Your task to perform on an android device: Open calendar and show me the second week of next month Image 0: 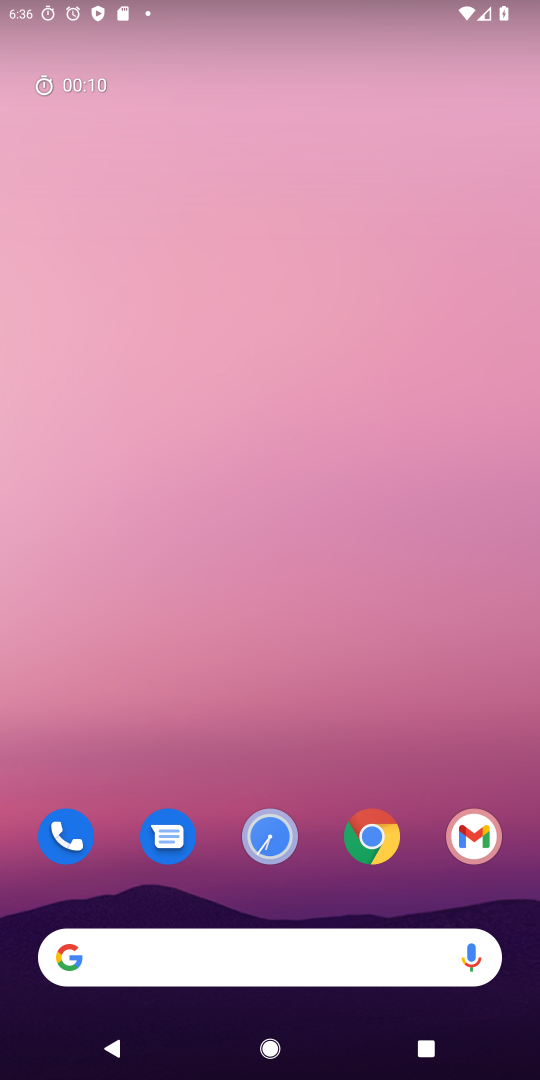
Step 0: drag from (348, 686) to (440, 6)
Your task to perform on an android device: Open calendar and show me the second week of next month Image 1: 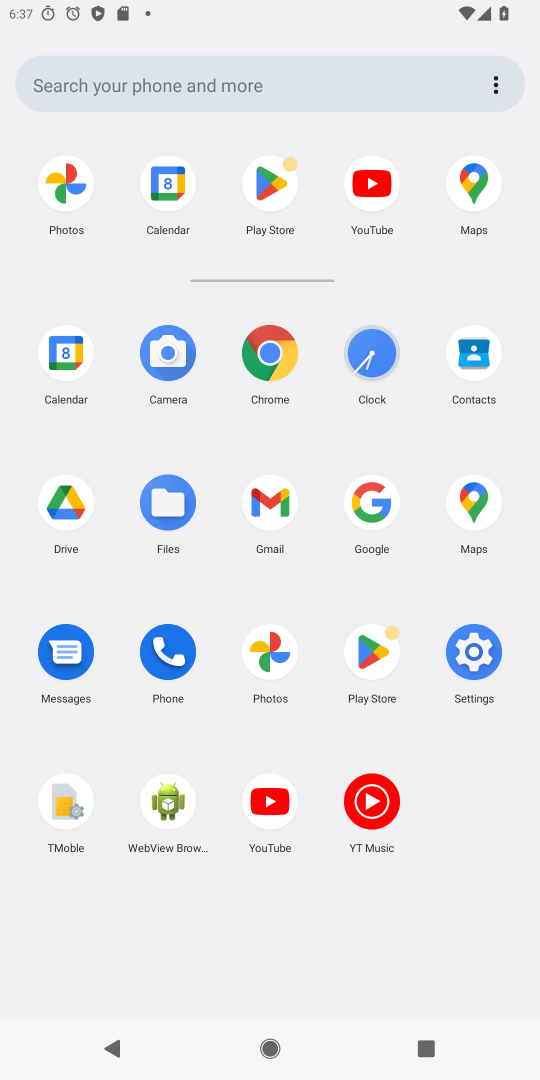
Step 1: click (47, 373)
Your task to perform on an android device: Open calendar and show me the second week of next month Image 2: 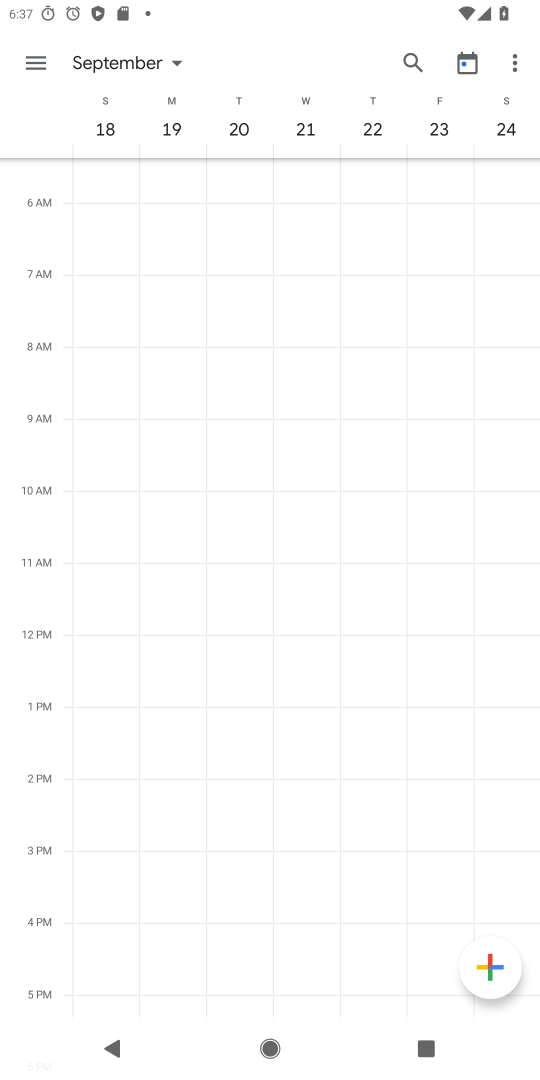
Step 2: click (171, 69)
Your task to perform on an android device: Open calendar and show me the second week of next month Image 3: 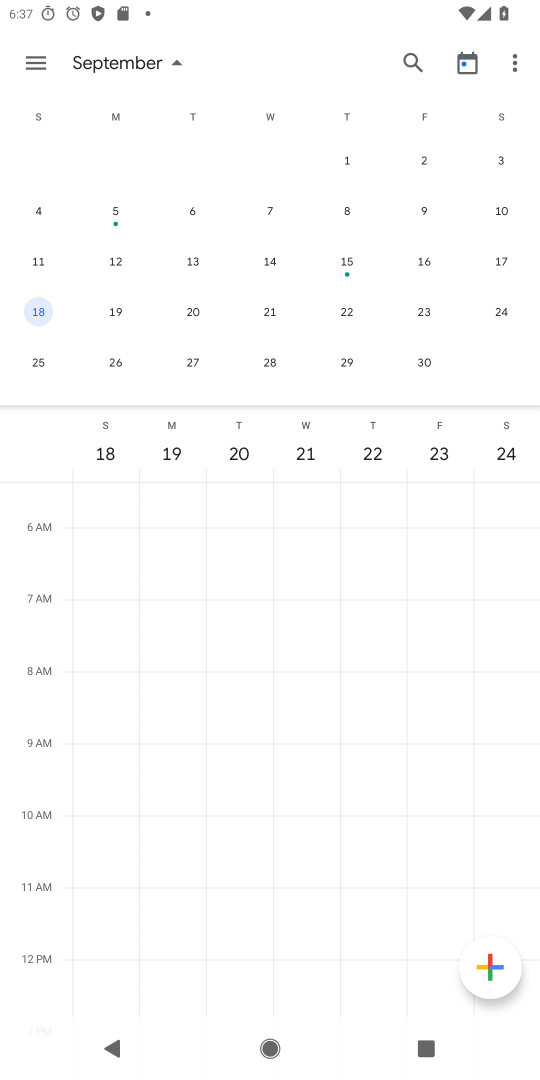
Step 3: click (24, 261)
Your task to perform on an android device: Open calendar and show me the second week of next month Image 4: 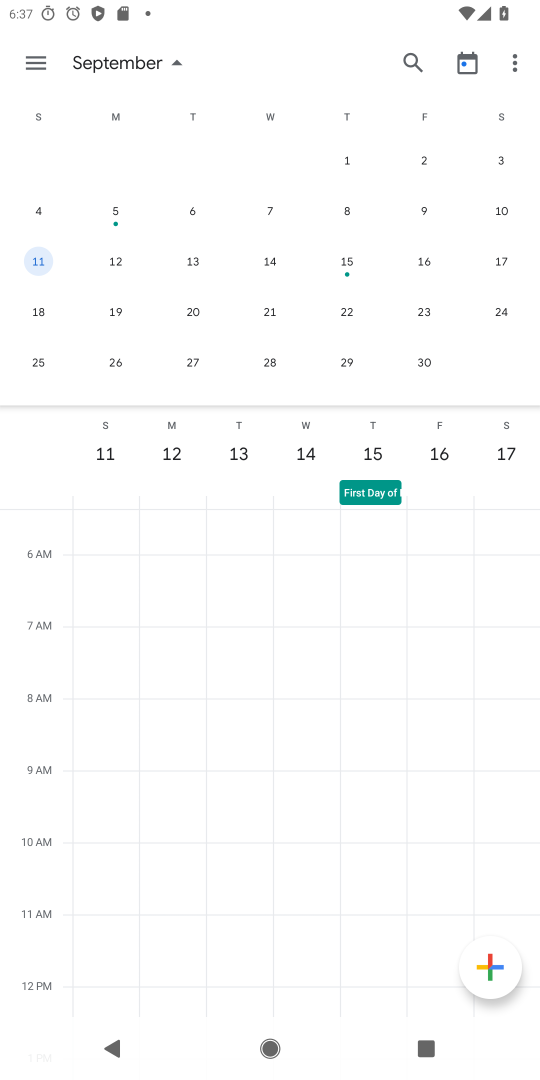
Step 4: click (159, 50)
Your task to perform on an android device: Open calendar and show me the second week of next month Image 5: 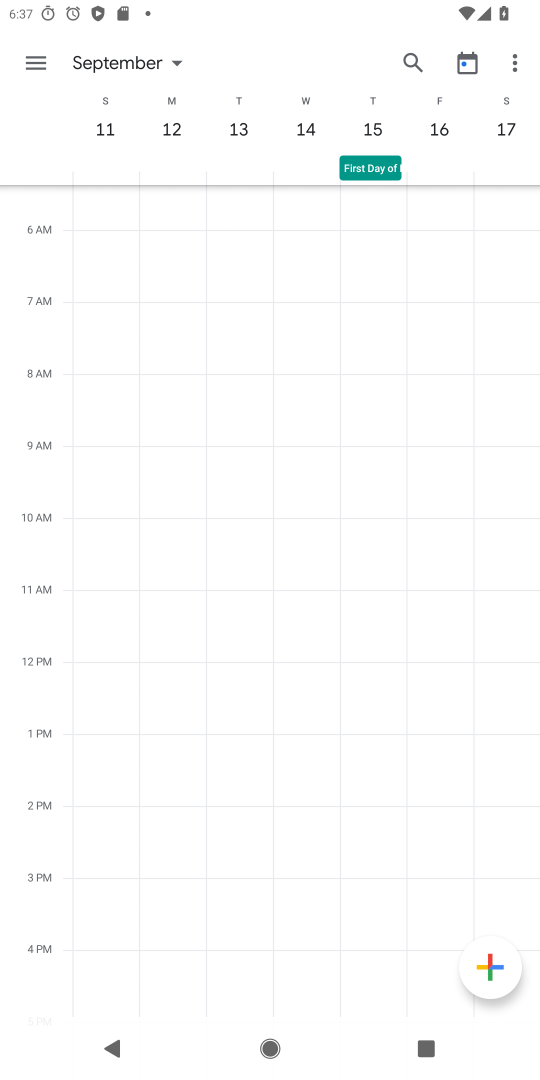
Step 5: task complete